Your task to perform on an android device: Go to calendar. Show me events next week Image 0: 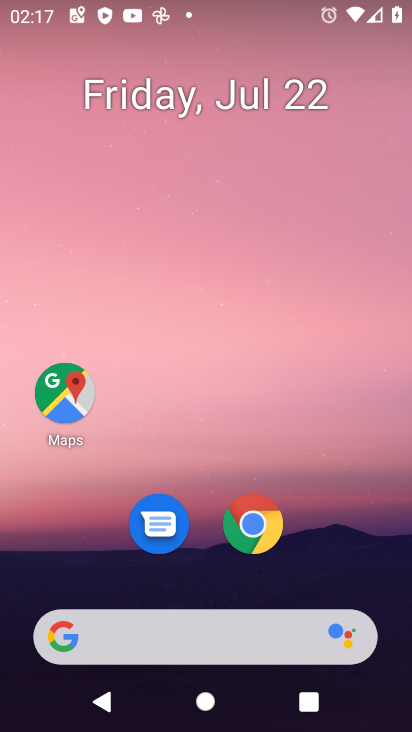
Step 0: press home button
Your task to perform on an android device: Go to calendar. Show me events next week Image 1: 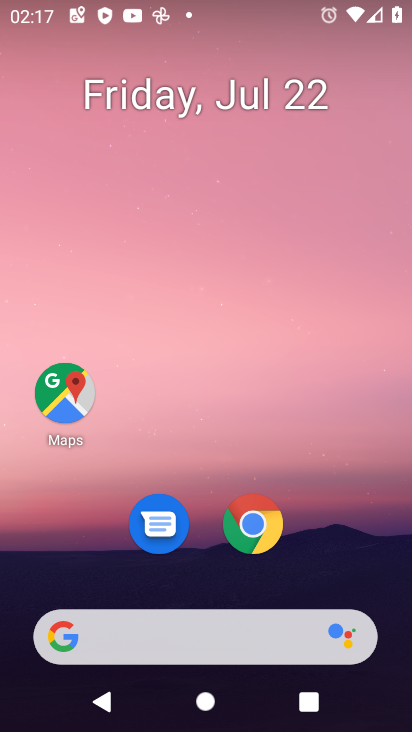
Step 1: drag from (188, 631) to (253, 161)
Your task to perform on an android device: Go to calendar. Show me events next week Image 2: 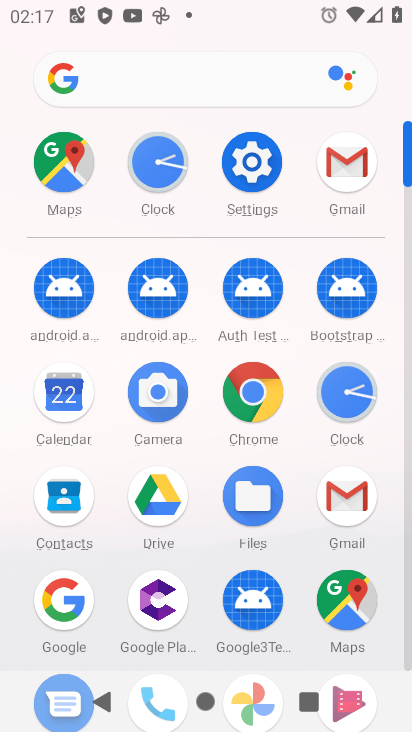
Step 2: click (69, 398)
Your task to perform on an android device: Go to calendar. Show me events next week Image 3: 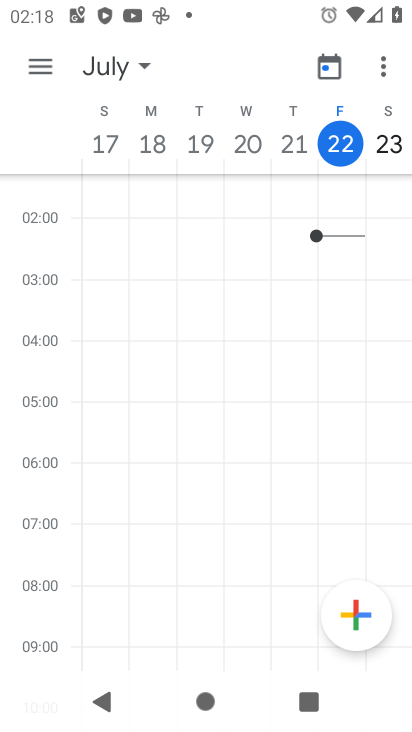
Step 3: click (99, 75)
Your task to perform on an android device: Go to calendar. Show me events next week Image 4: 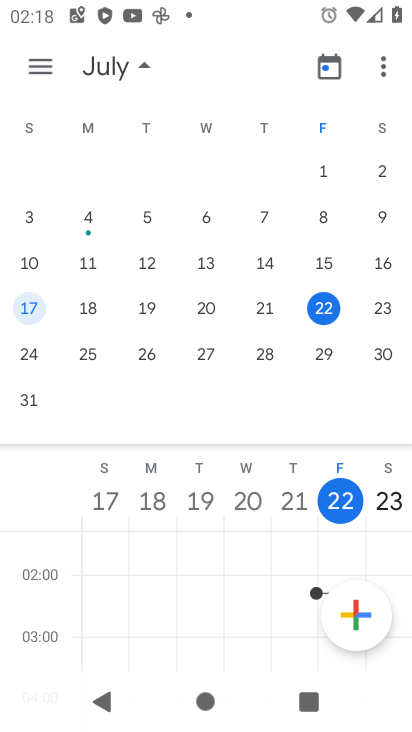
Step 4: click (31, 364)
Your task to perform on an android device: Go to calendar. Show me events next week Image 5: 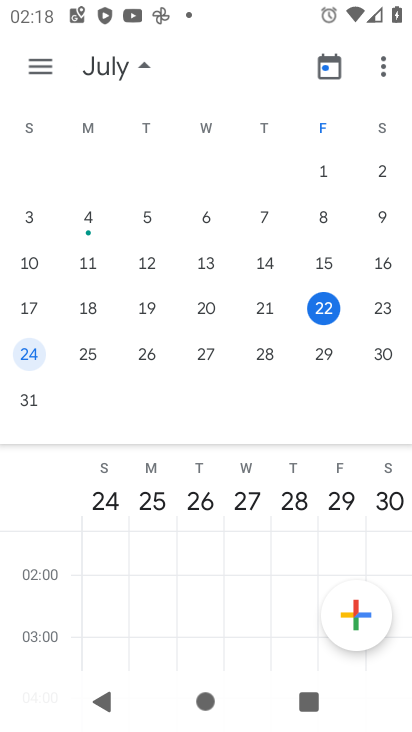
Step 5: click (42, 66)
Your task to perform on an android device: Go to calendar. Show me events next week Image 6: 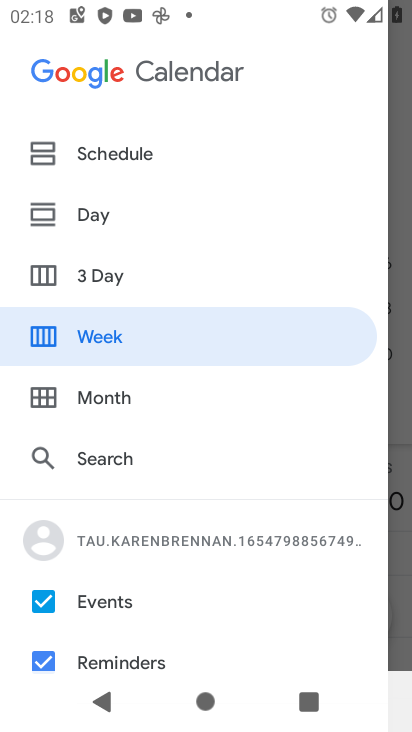
Step 6: click (108, 155)
Your task to perform on an android device: Go to calendar. Show me events next week Image 7: 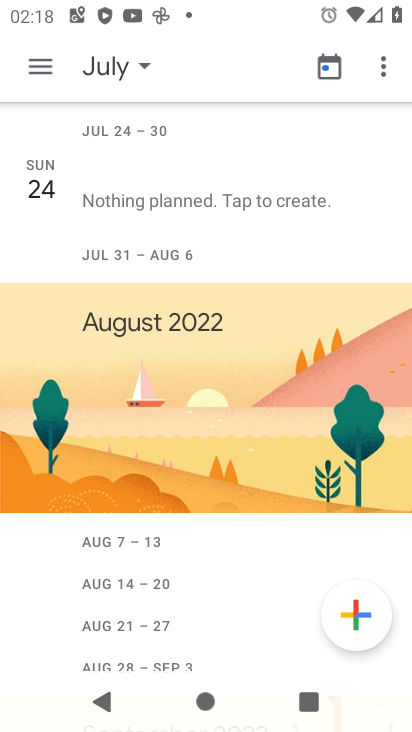
Step 7: task complete